Your task to perform on an android device: Open maps Image 0: 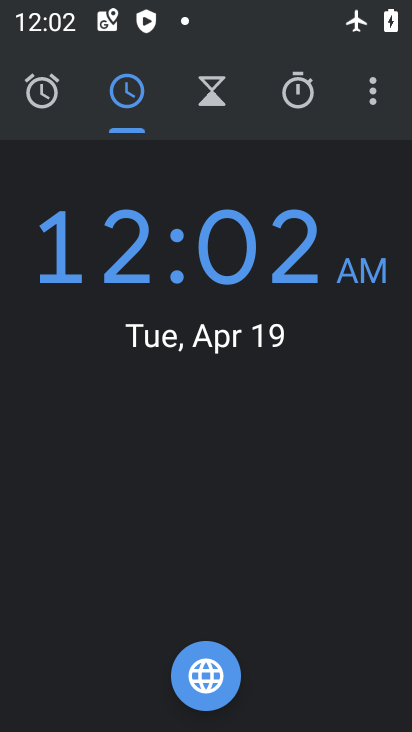
Step 0: press home button
Your task to perform on an android device: Open maps Image 1: 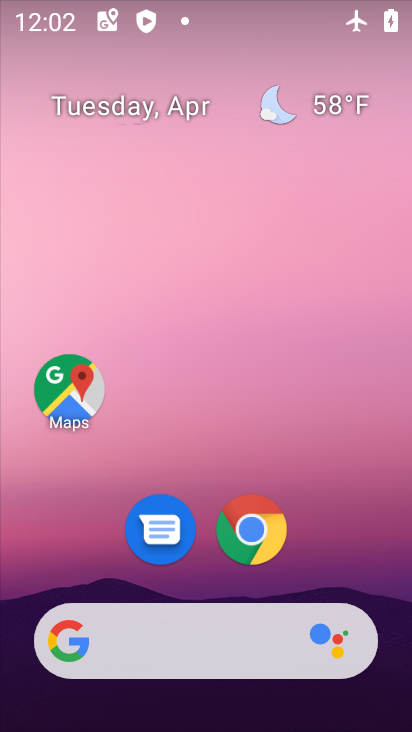
Step 1: click (76, 360)
Your task to perform on an android device: Open maps Image 2: 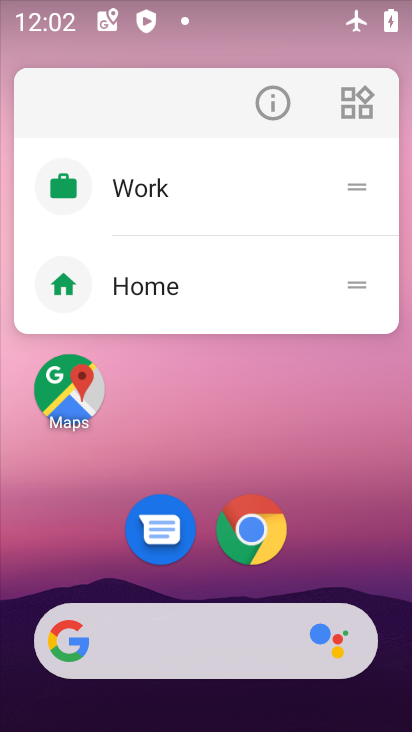
Step 2: click (76, 360)
Your task to perform on an android device: Open maps Image 3: 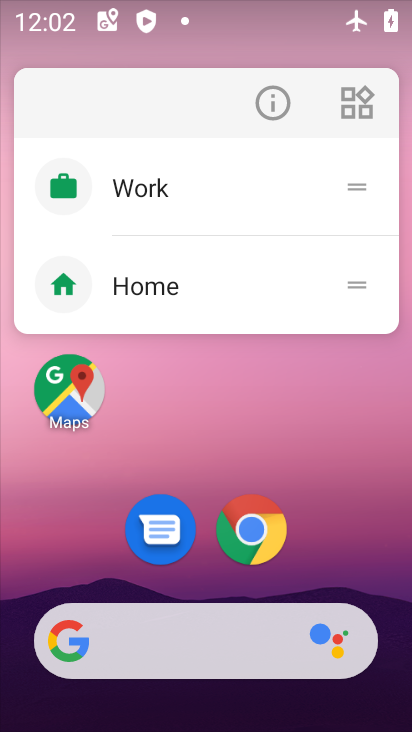
Step 3: click (76, 358)
Your task to perform on an android device: Open maps Image 4: 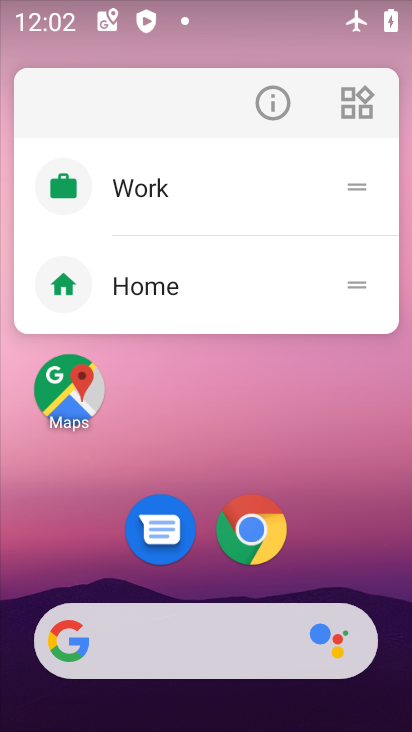
Step 4: click (53, 408)
Your task to perform on an android device: Open maps Image 5: 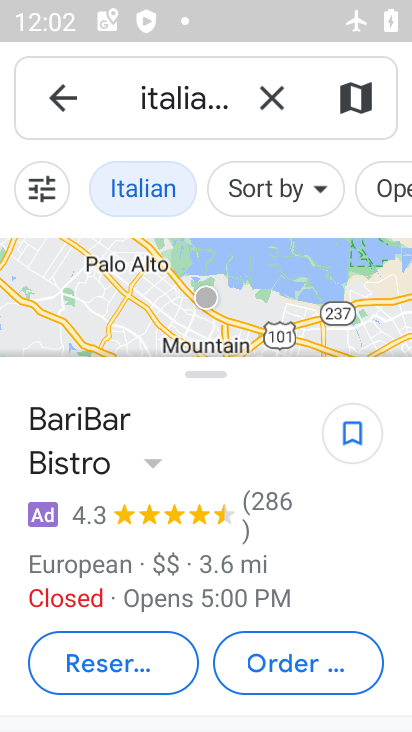
Step 5: click (267, 94)
Your task to perform on an android device: Open maps Image 6: 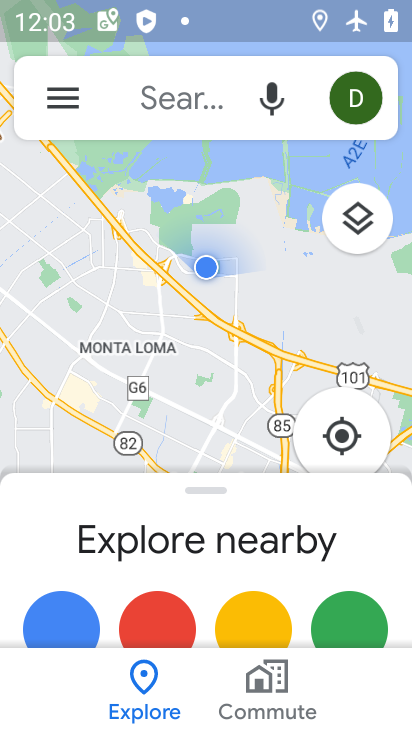
Step 6: task complete